Your task to perform on an android device: turn off airplane mode Image 0: 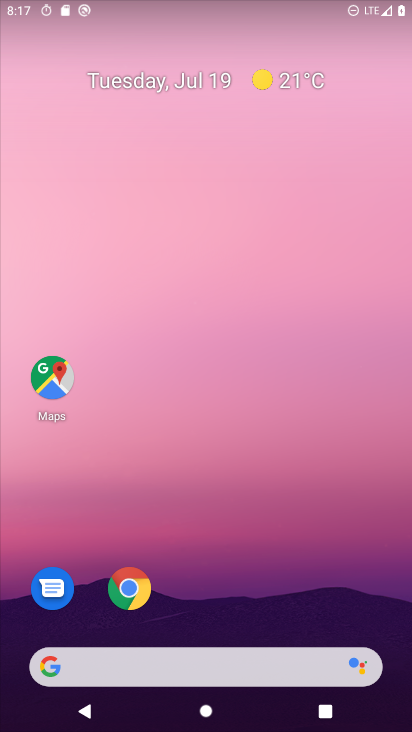
Step 0: drag from (219, 602) to (243, 173)
Your task to perform on an android device: turn off airplane mode Image 1: 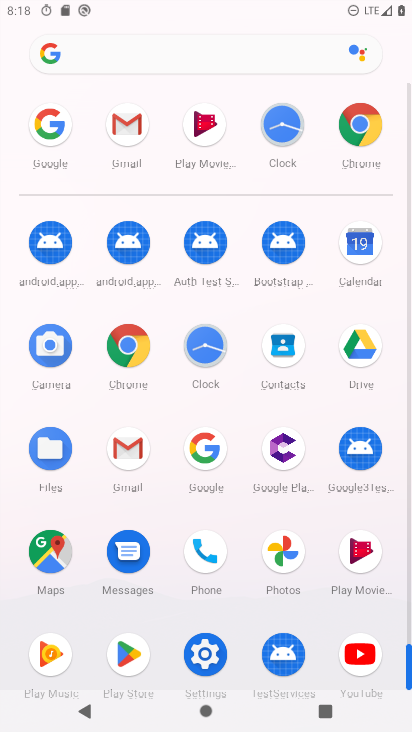
Step 1: task complete